Your task to perform on an android device: Search for pizza restaurants on Maps Image 0: 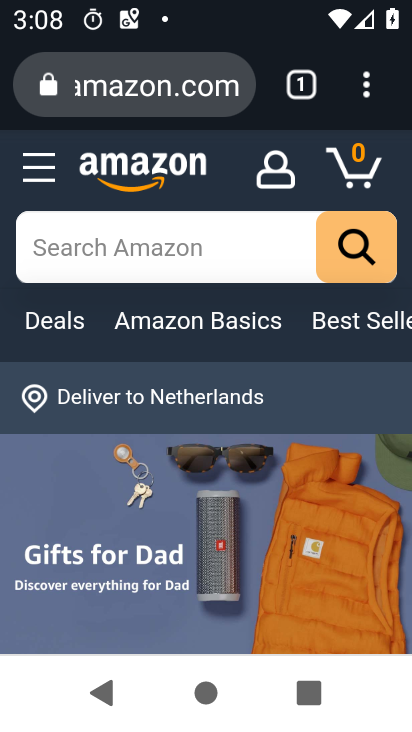
Step 0: press home button
Your task to perform on an android device: Search for pizza restaurants on Maps Image 1: 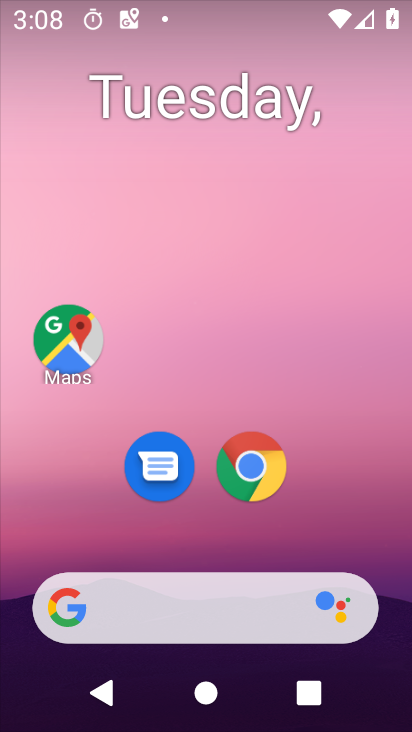
Step 1: drag from (377, 534) to (375, 164)
Your task to perform on an android device: Search for pizza restaurants on Maps Image 2: 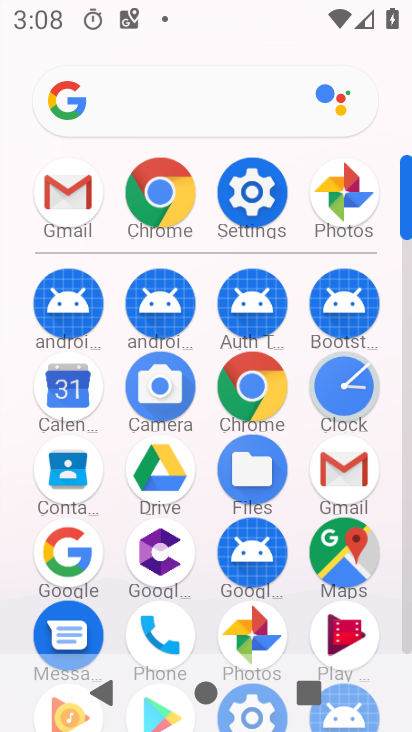
Step 2: click (360, 549)
Your task to perform on an android device: Search for pizza restaurants on Maps Image 3: 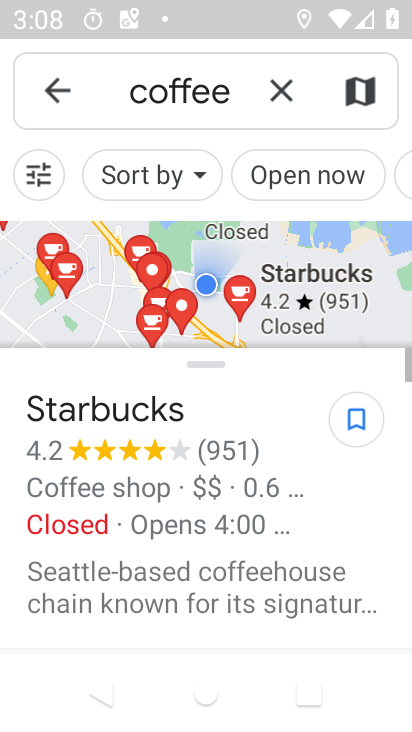
Step 3: click (286, 98)
Your task to perform on an android device: Search for pizza restaurants on Maps Image 4: 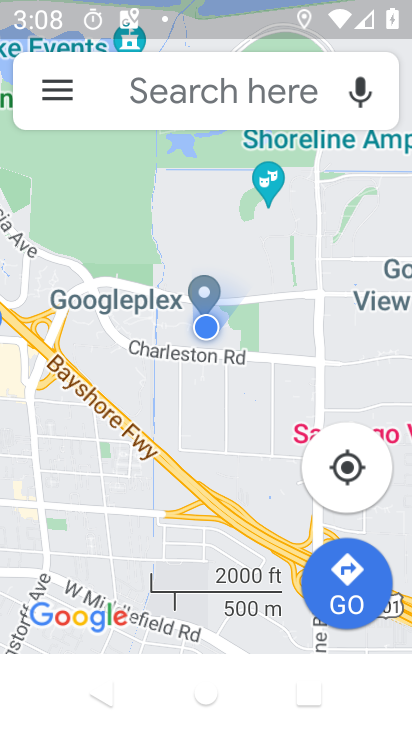
Step 4: click (258, 99)
Your task to perform on an android device: Search for pizza restaurants on Maps Image 5: 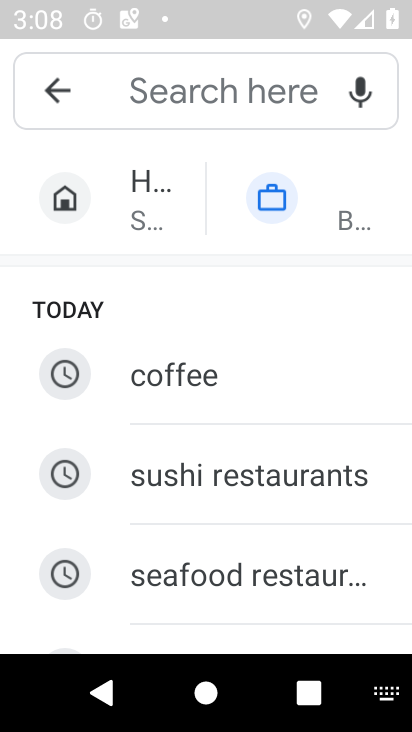
Step 5: type "pizzaa restaurants"
Your task to perform on an android device: Search for pizza restaurants on Maps Image 6: 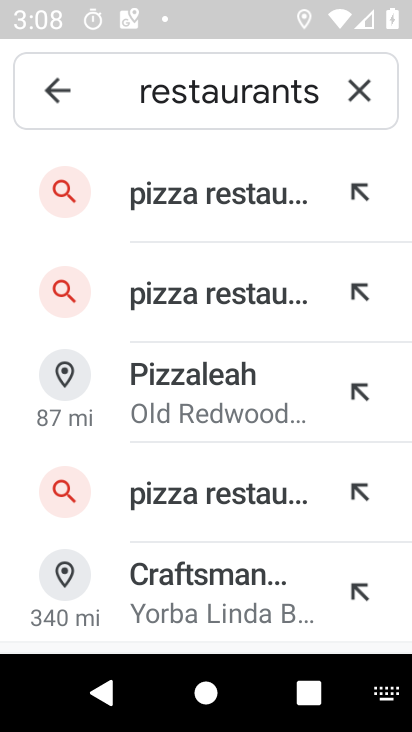
Step 6: click (254, 206)
Your task to perform on an android device: Search for pizza restaurants on Maps Image 7: 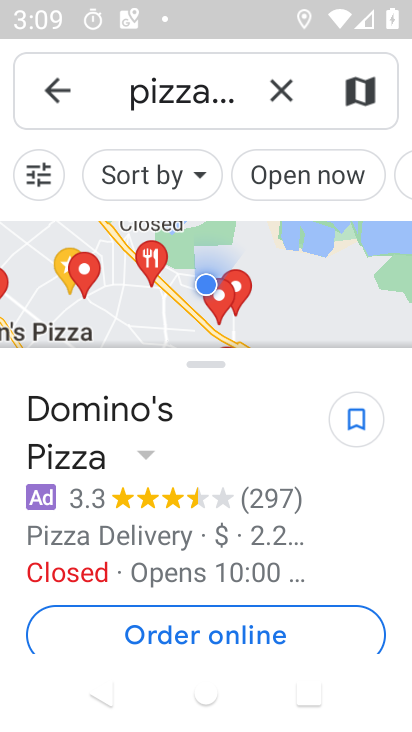
Step 7: task complete